Your task to perform on an android device: What's the price of the new iPhone on eBay? Image 0: 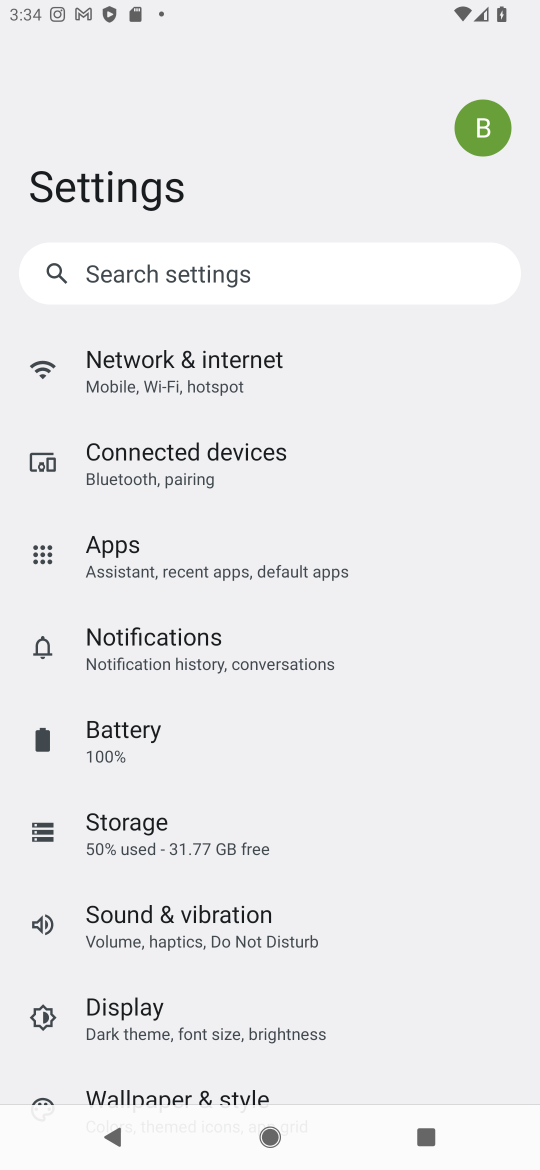
Step 0: press home button
Your task to perform on an android device: What's the price of the new iPhone on eBay? Image 1: 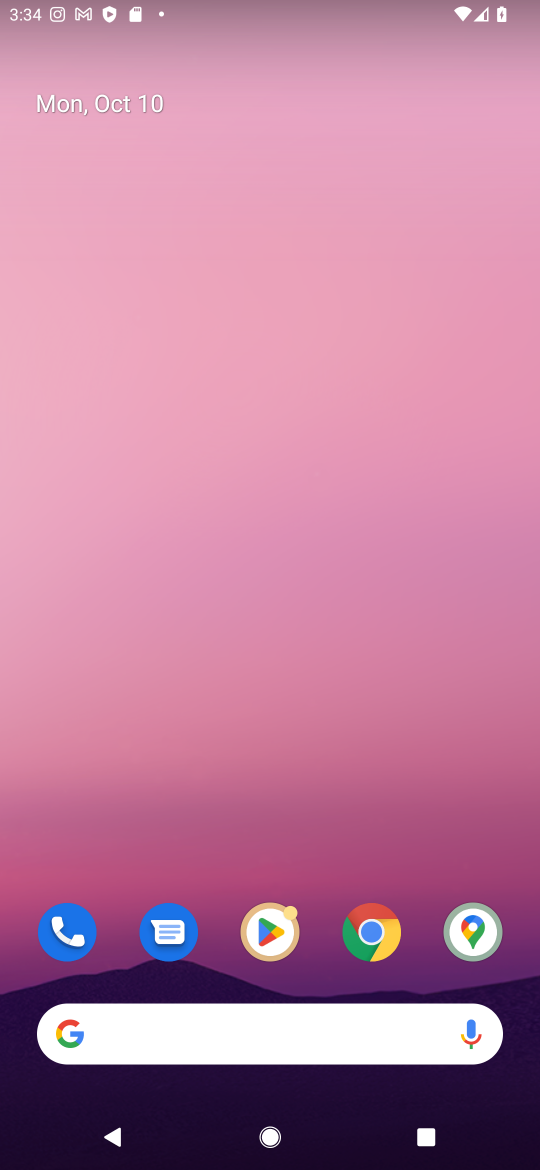
Step 1: click (352, 1035)
Your task to perform on an android device: What's the price of the new iPhone on eBay? Image 2: 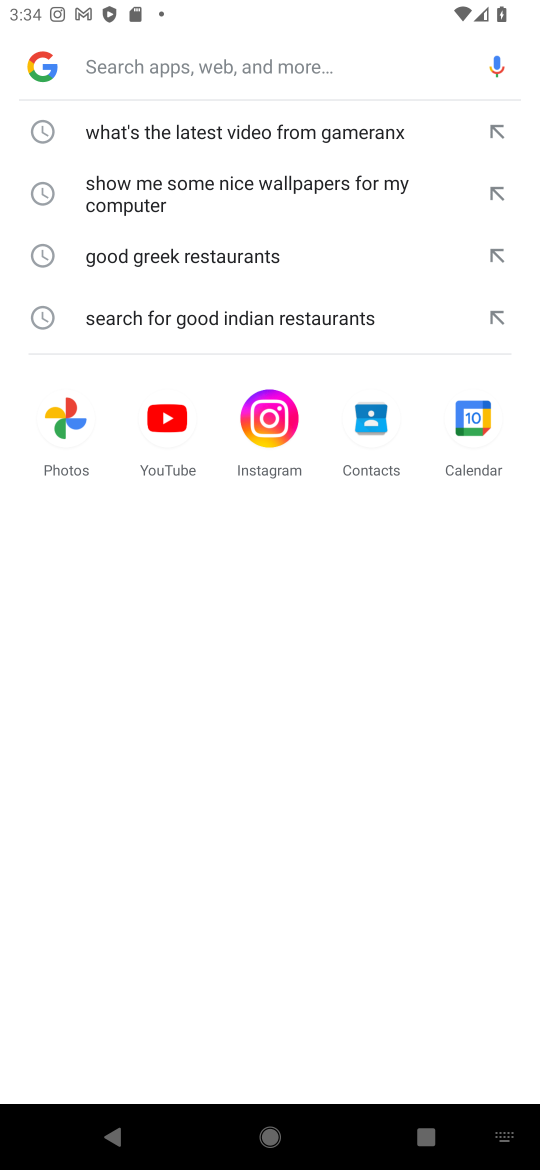
Step 2: type "What's the price of the new iPhone on eBay"
Your task to perform on an android device: What's the price of the new iPhone on eBay? Image 3: 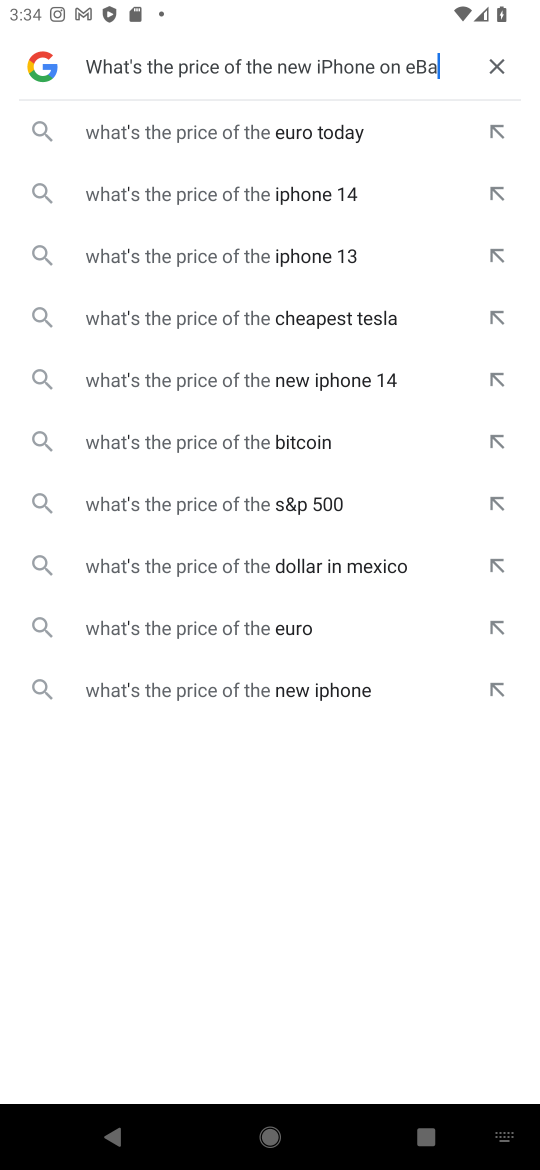
Step 3: press enter
Your task to perform on an android device: What's the price of the new iPhone on eBay? Image 4: 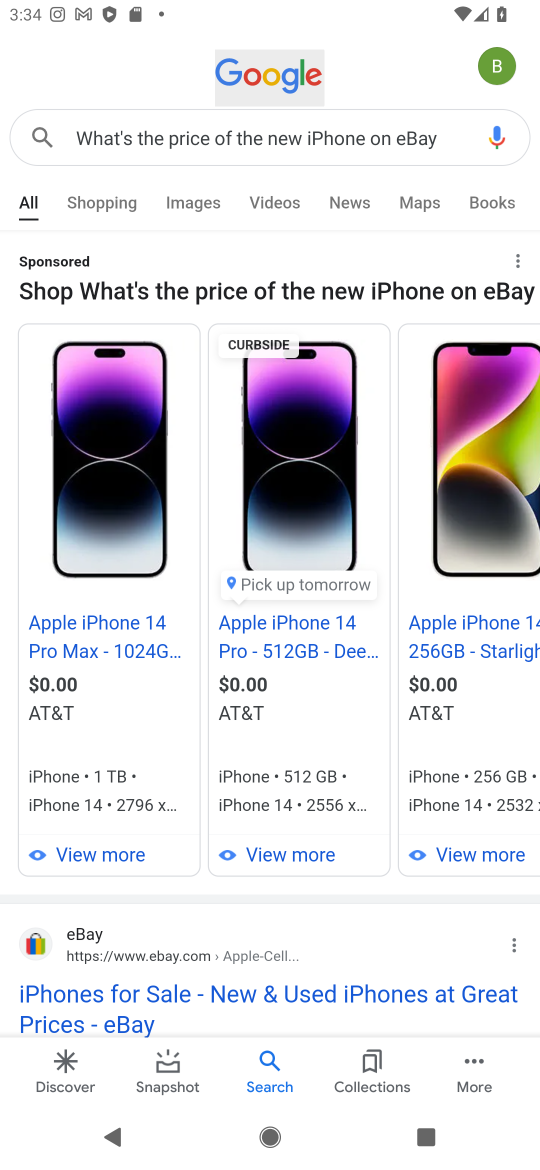
Step 4: drag from (372, 904) to (361, 623)
Your task to perform on an android device: What's the price of the new iPhone on eBay? Image 5: 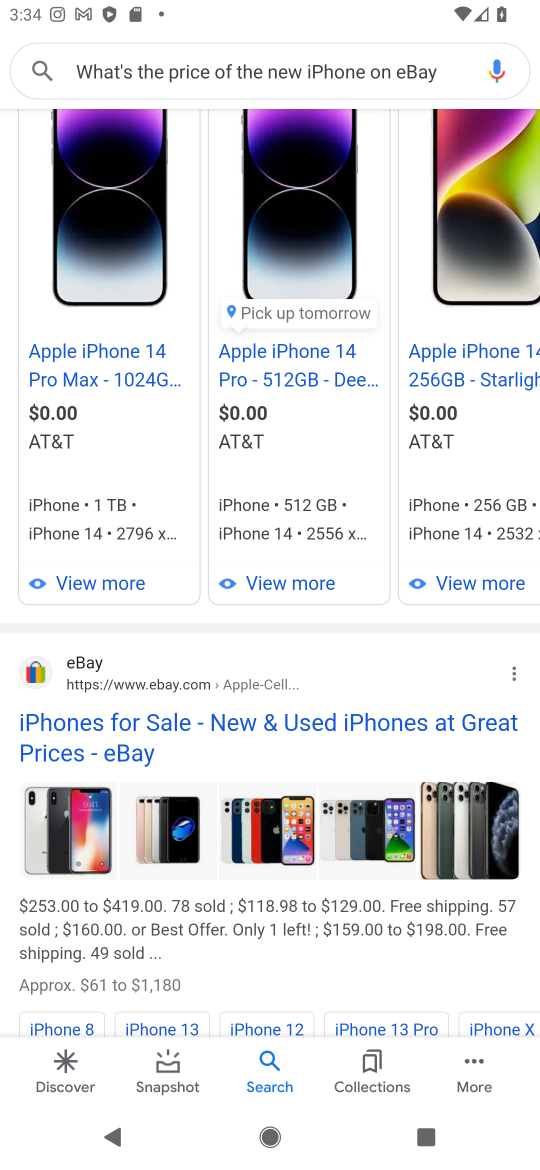
Step 5: click (324, 717)
Your task to perform on an android device: What's the price of the new iPhone on eBay? Image 6: 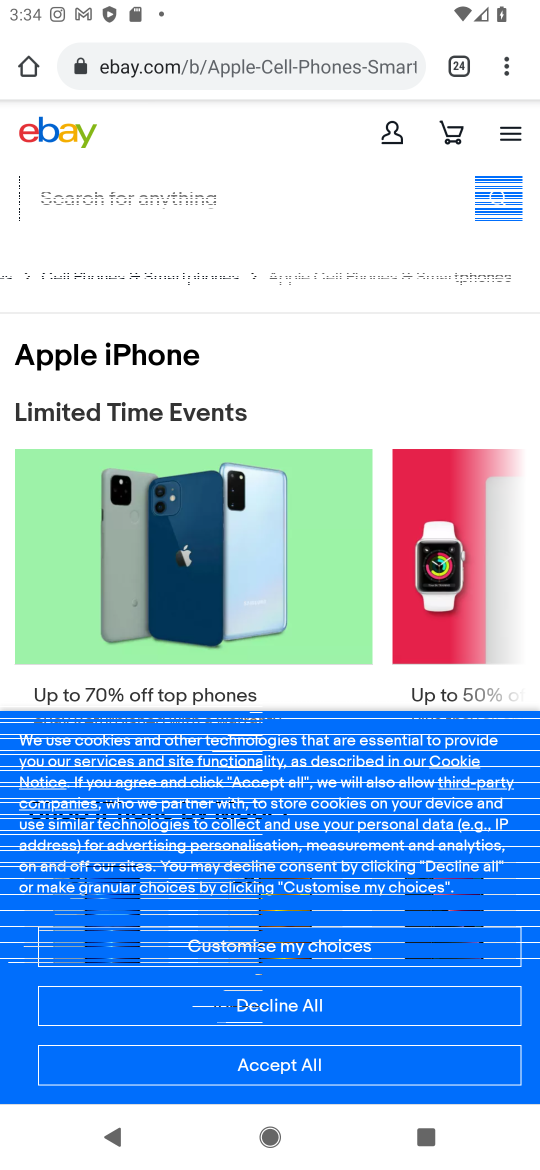
Step 6: click (327, 1075)
Your task to perform on an android device: What's the price of the new iPhone on eBay? Image 7: 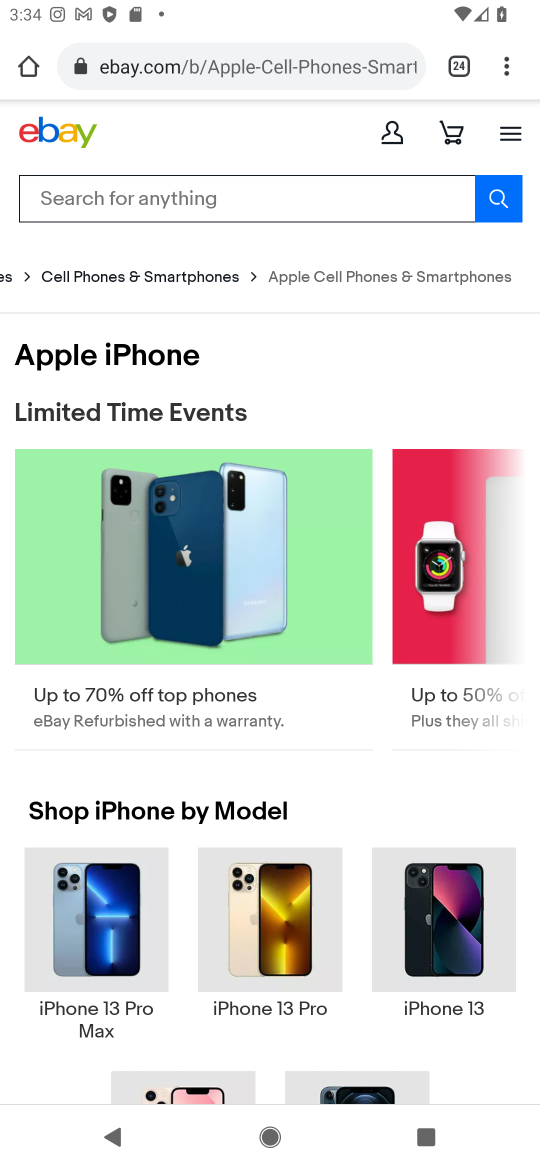
Step 7: task complete